Your task to perform on an android device: Go to display settings Image 0: 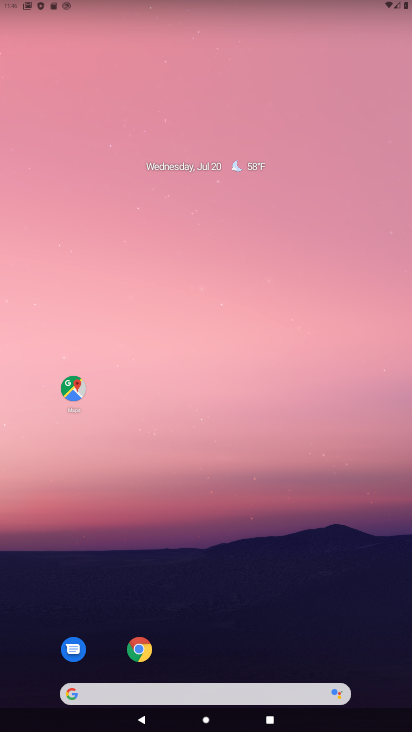
Step 0: drag from (265, 228) to (261, 165)
Your task to perform on an android device: Go to display settings Image 1: 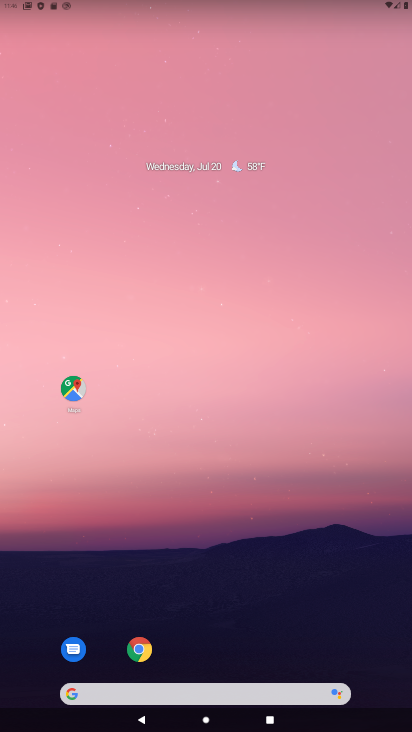
Step 1: drag from (249, 188) to (270, 72)
Your task to perform on an android device: Go to display settings Image 2: 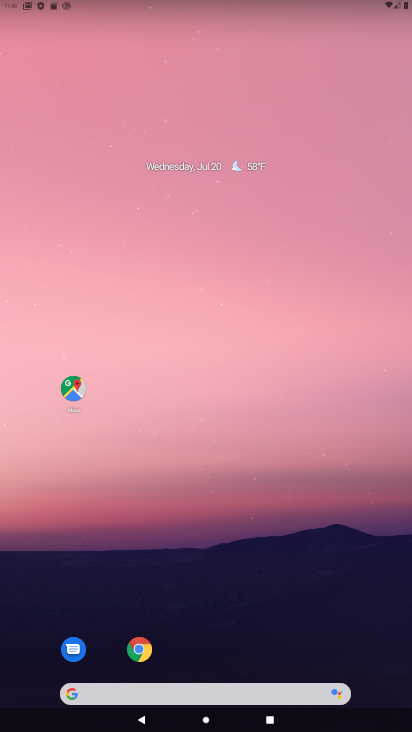
Step 2: drag from (224, 662) to (287, 39)
Your task to perform on an android device: Go to display settings Image 3: 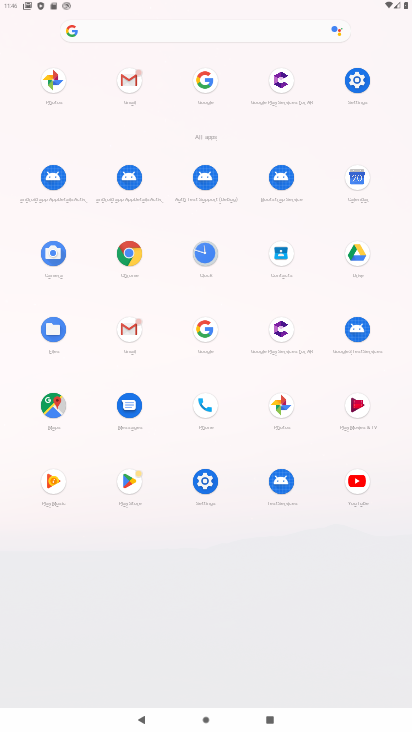
Step 3: click (354, 79)
Your task to perform on an android device: Go to display settings Image 4: 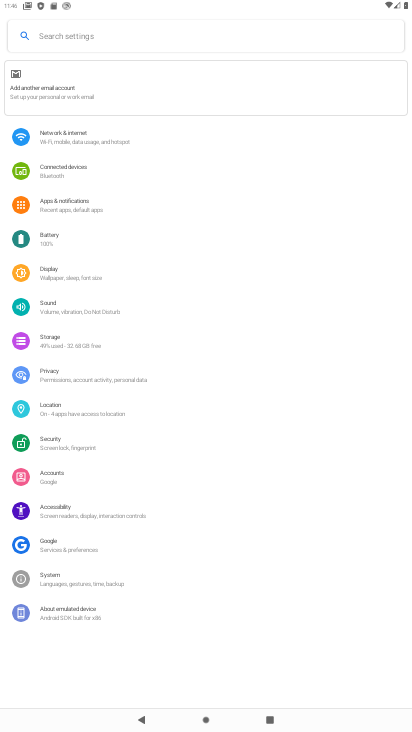
Step 4: click (69, 269)
Your task to perform on an android device: Go to display settings Image 5: 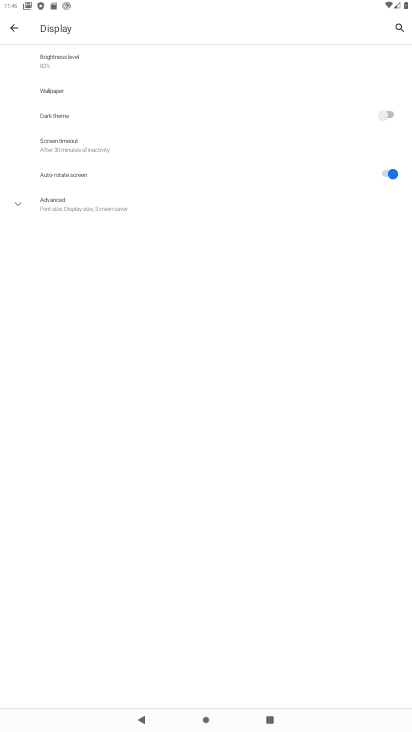
Step 5: task complete